Your task to perform on an android device: change text size in settings app Image 0: 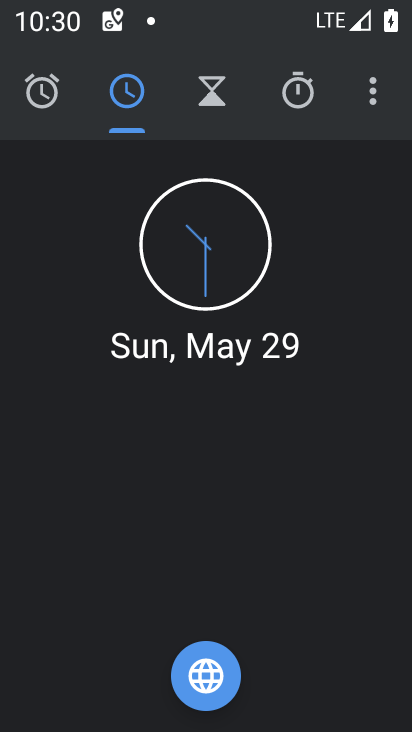
Step 0: press home button
Your task to perform on an android device: change text size in settings app Image 1: 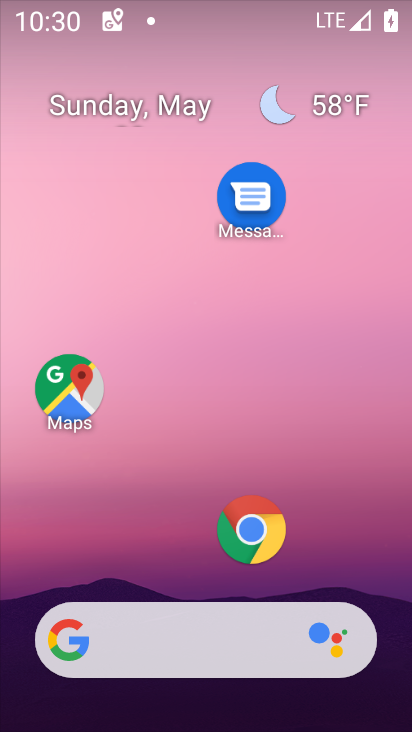
Step 1: drag from (139, 596) to (187, 298)
Your task to perform on an android device: change text size in settings app Image 2: 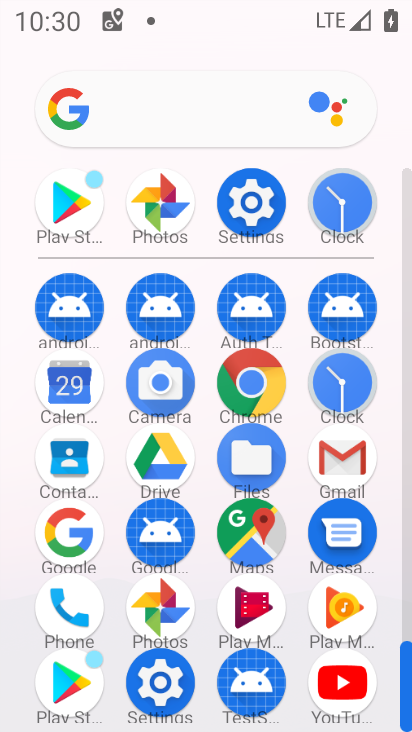
Step 2: click (166, 670)
Your task to perform on an android device: change text size in settings app Image 3: 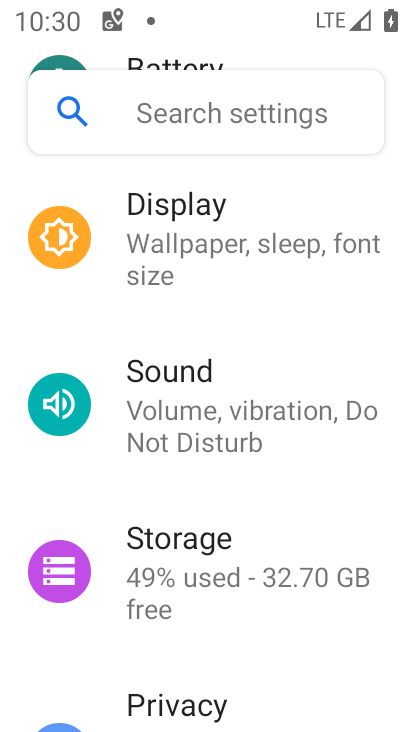
Step 3: drag from (268, 367) to (237, 630)
Your task to perform on an android device: change text size in settings app Image 4: 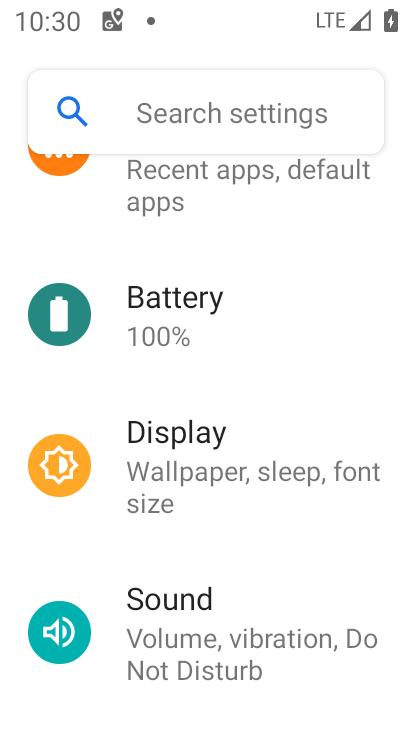
Step 4: drag from (271, 362) to (204, 730)
Your task to perform on an android device: change text size in settings app Image 5: 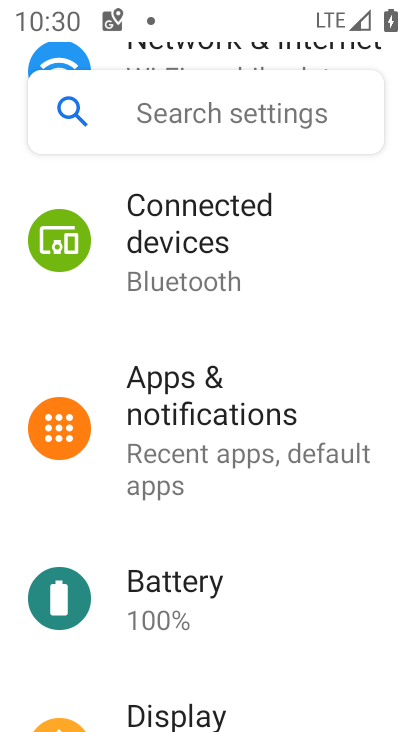
Step 5: drag from (214, 590) to (226, 443)
Your task to perform on an android device: change text size in settings app Image 6: 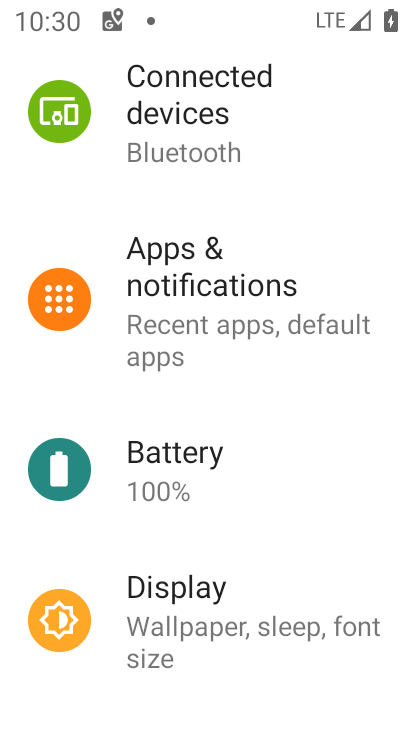
Step 6: click (190, 604)
Your task to perform on an android device: change text size in settings app Image 7: 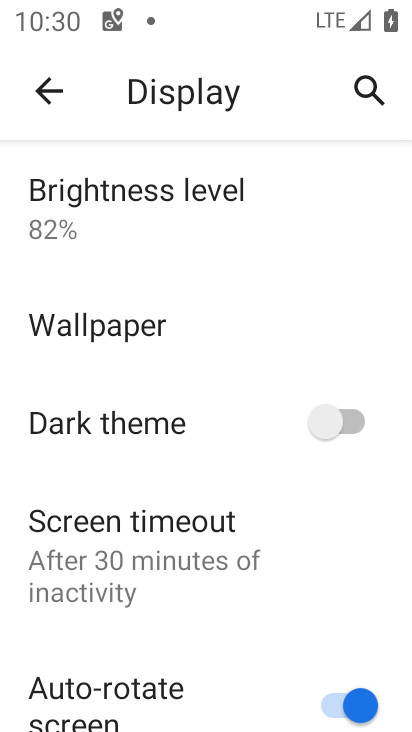
Step 7: drag from (219, 586) to (256, 375)
Your task to perform on an android device: change text size in settings app Image 8: 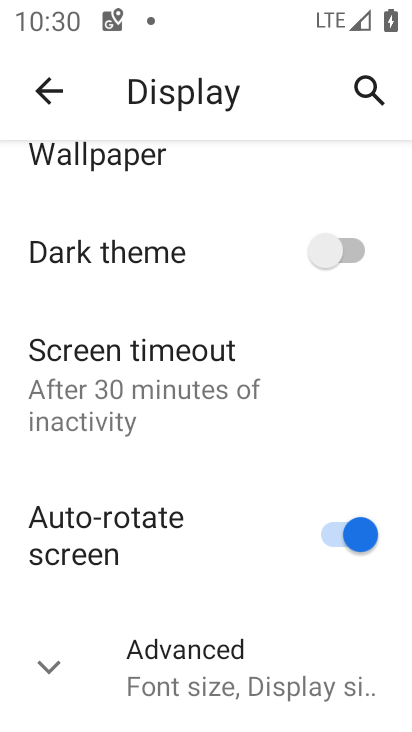
Step 8: drag from (200, 663) to (216, 551)
Your task to perform on an android device: change text size in settings app Image 9: 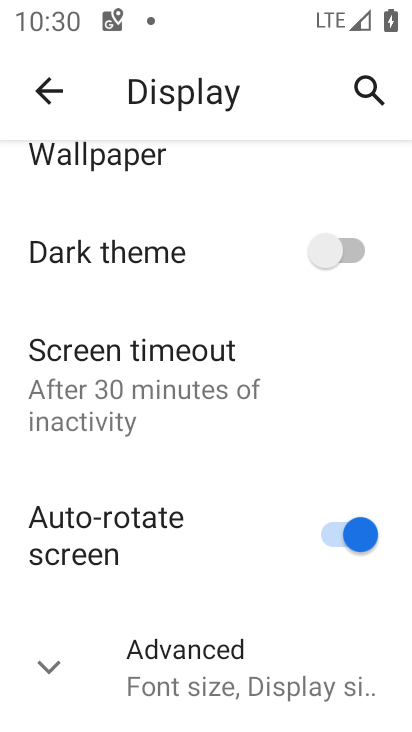
Step 9: click (180, 681)
Your task to perform on an android device: change text size in settings app Image 10: 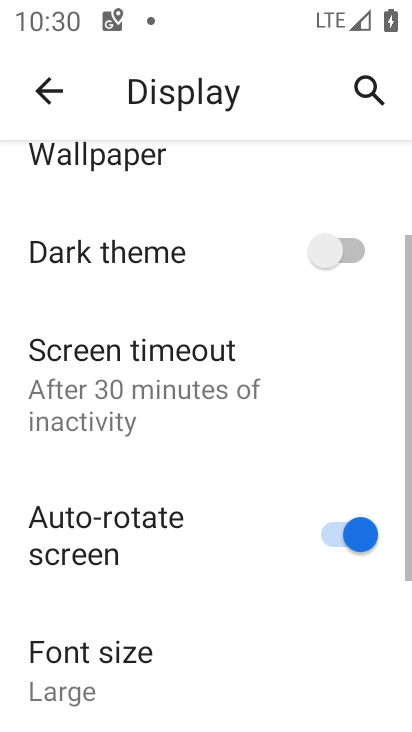
Step 10: click (161, 686)
Your task to perform on an android device: change text size in settings app Image 11: 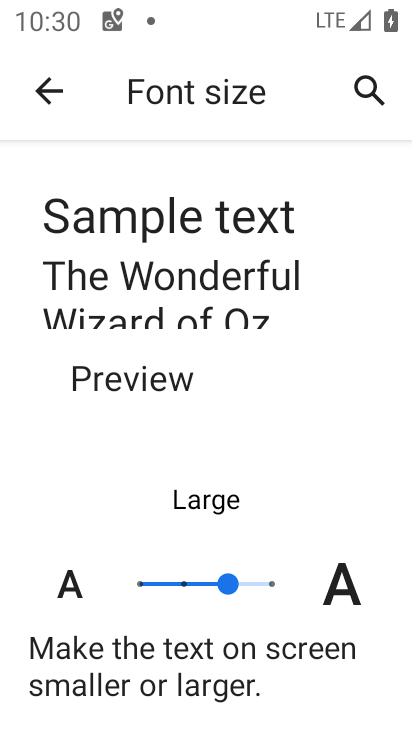
Step 11: click (139, 584)
Your task to perform on an android device: change text size in settings app Image 12: 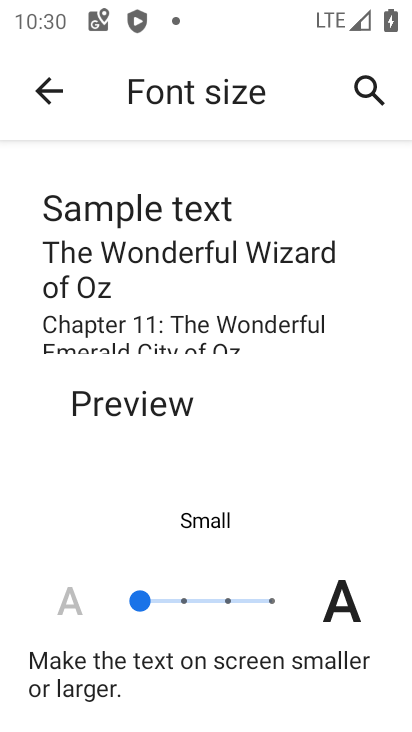
Step 12: task complete